Your task to perform on an android device: turn notification dots on Image 0: 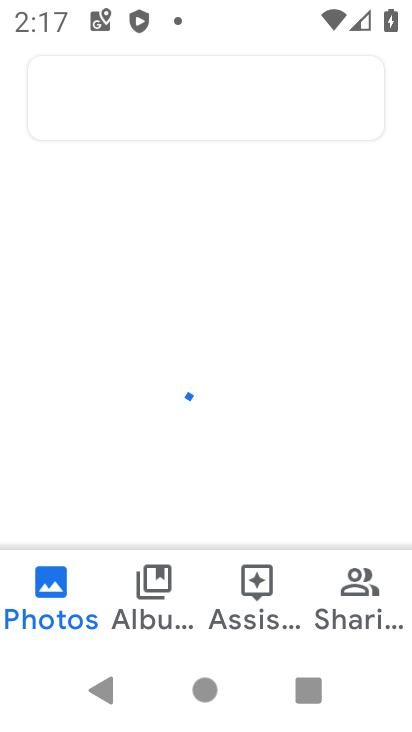
Step 0: press home button
Your task to perform on an android device: turn notification dots on Image 1: 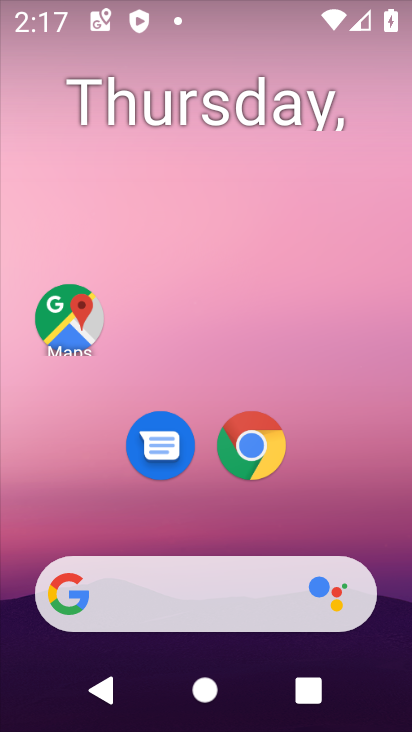
Step 1: drag from (18, 609) to (267, 132)
Your task to perform on an android device: turn notification dots on Image 2: 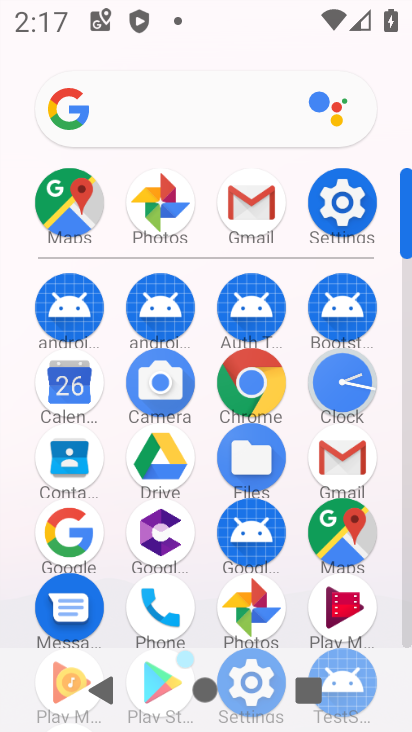
Step 2: click (339, 199)
Your task to perform on an android device: turn notification dots on Image 3: 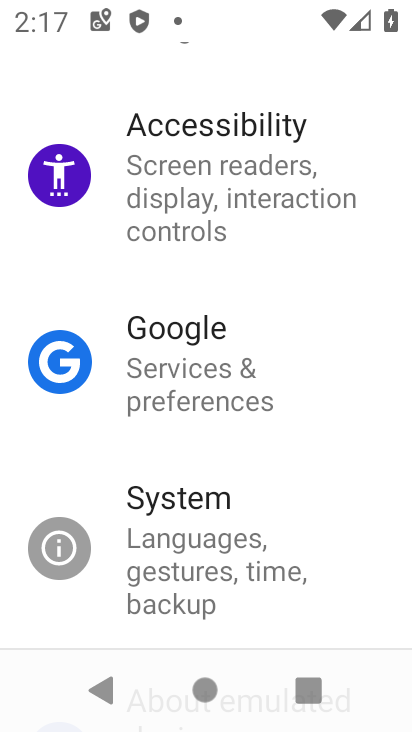
Step 3: drag from (180, 139) to (203, 679)
Your task to perform on an android device: turn notification dots on Image 4: 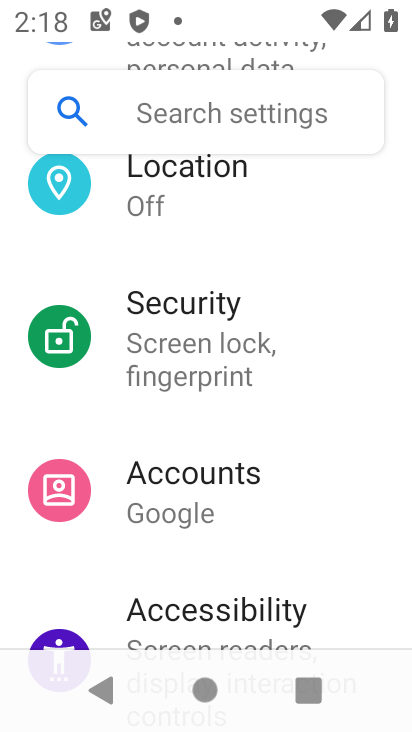
Step 4: drag from (171, 216) to (221, 728)
Your task to perform on an android device: turn notification dots on Image 5: 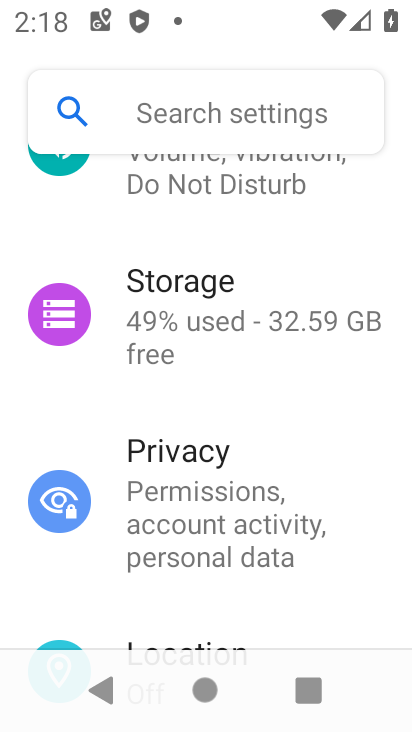
Step 5: drag from (166, 245) to (202, 595)
Your task to perform on an android device: turn notification dots on Image 6: 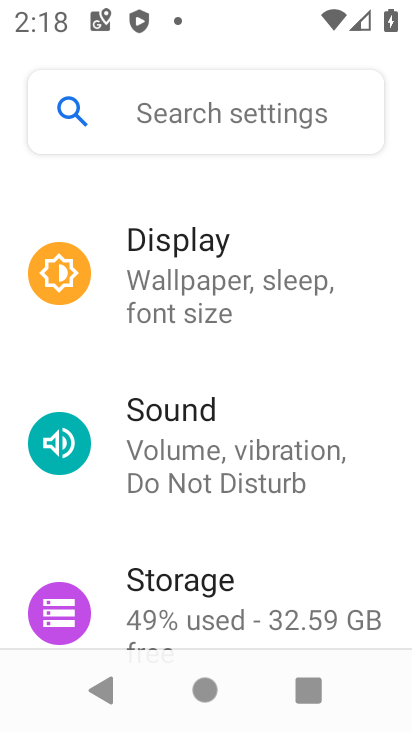
Step 6: drag from (177, 155) to (180, 495)
Your task to perform on an android device: turn notification dots on Image 7: 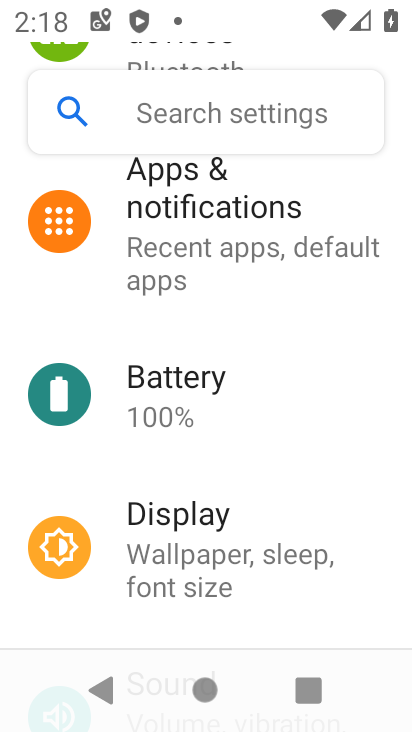
Step 7: click (184, 225)
Your task to perform on an android device: turn notification dots on Image 8: 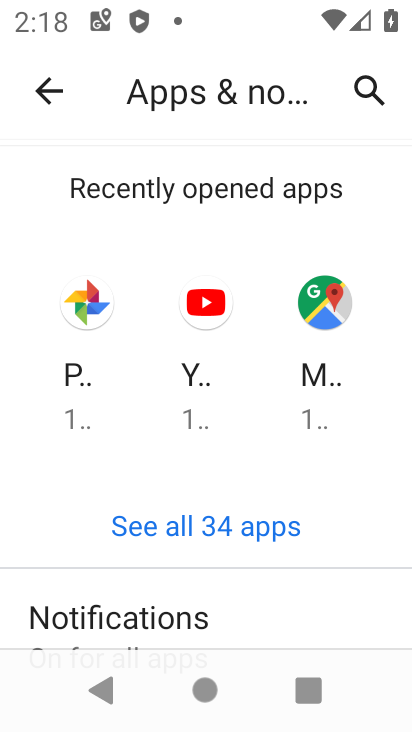
Step 8: drag from (13, 480) to (197, 188)
Your task to perform on an android device: turn notification dots on Image 9: 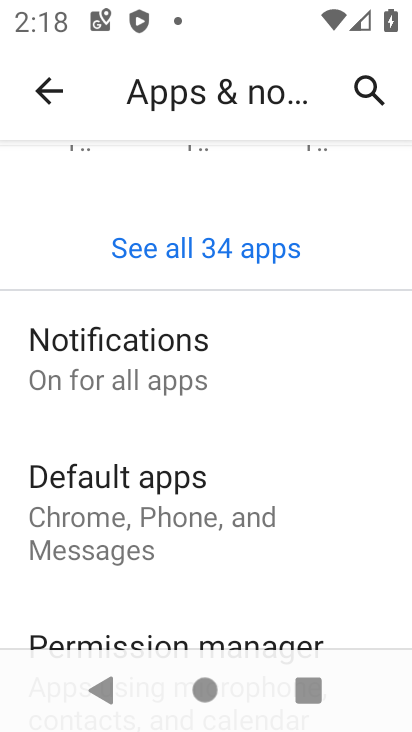
Step 9: click (108, 352)
Your task to perform on an android device: turn notification dots on Image 10: 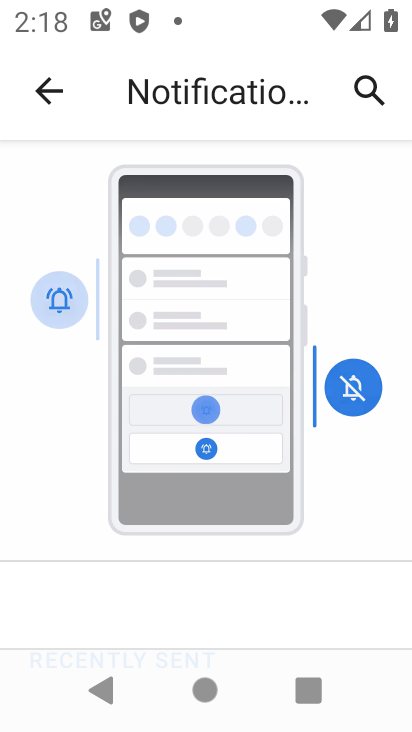
Step 10: drag from (41, 461) to (200, 230)
Your task to perform on an android device: turn notification dots on Image 11: 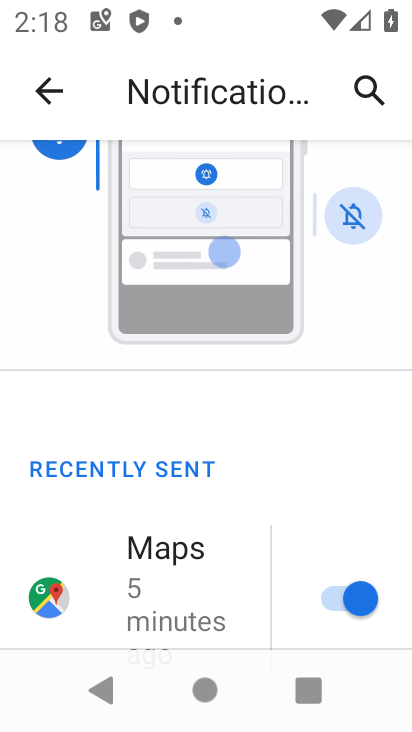
Step 11: drag from (55, 532) to (303, 109)
Your task to perform on an android device: turn notification dots on Image 12: 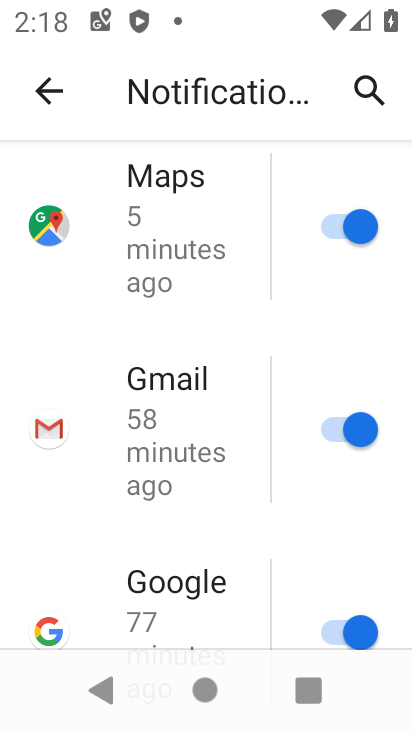
Step 12: drag from (9, 547) to (343, 23)
Your task to perform on an android device: turn notification dots on Image 13: 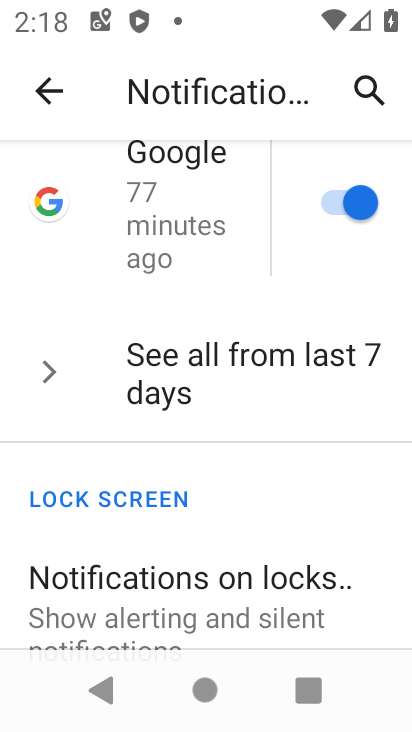
Step 13: drag from (38, 569) to (263, 194)
Your task to perform on an android device: turn notification dots on Image 14: 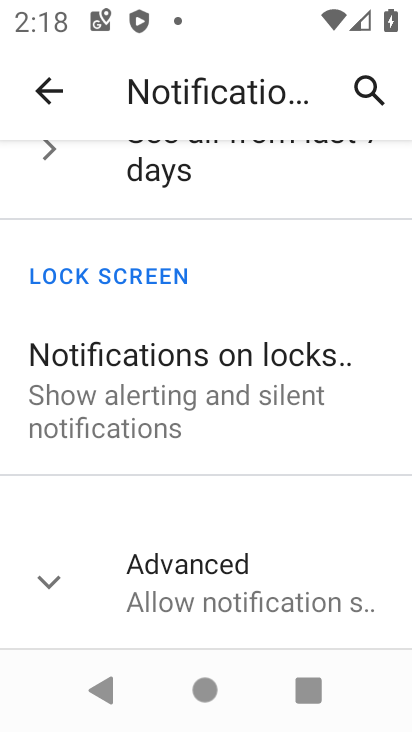
Step 14: drag from (14, 521) to (153, 260)
Your task to perform on an android device: turn notification dots on Image 15: 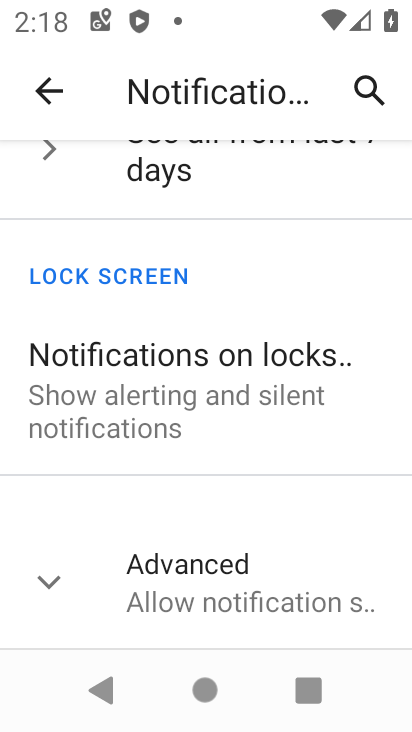
Step 15: click (155, 578)
Your task to perform on an android device: turn notification dots on Image 16: 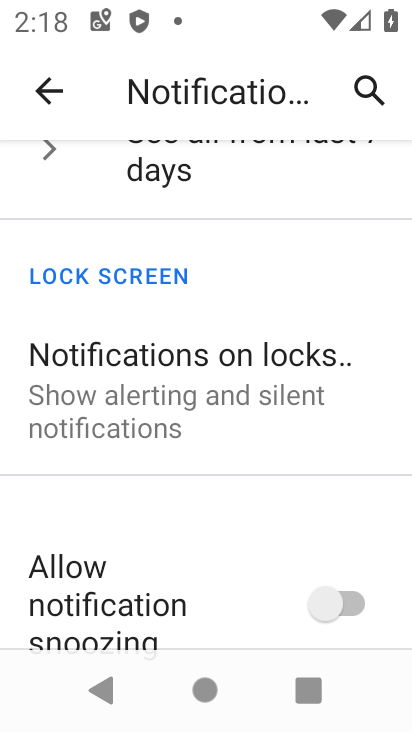
Step 16: task complete